Your task to perform on an android device: Do I have any events tomorrow? Image 0: 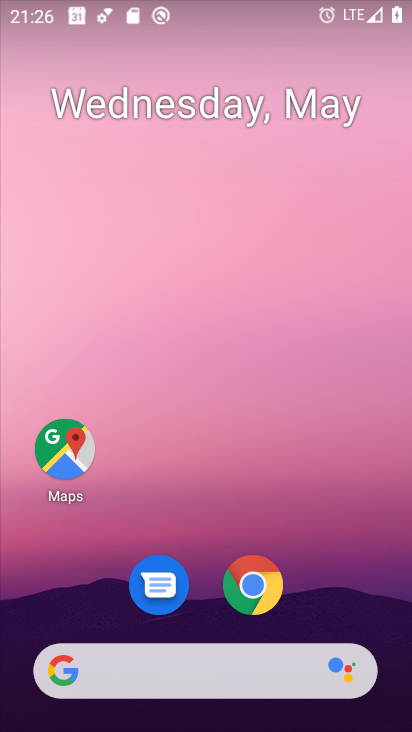
Step 0: drag from (349, 501) to (313, 98)
Your task to perform on an android device: Do I have any events tomorrow? Image 1: 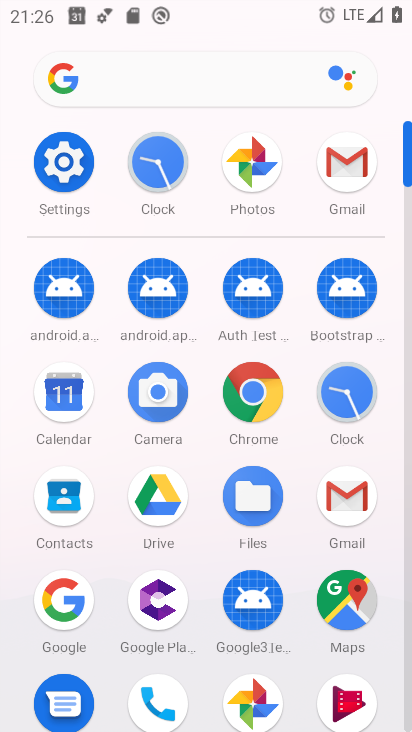
Step 1: click (69, 386)
Your task to perform on an android device: Do I have any events tomorrow? Image 2: 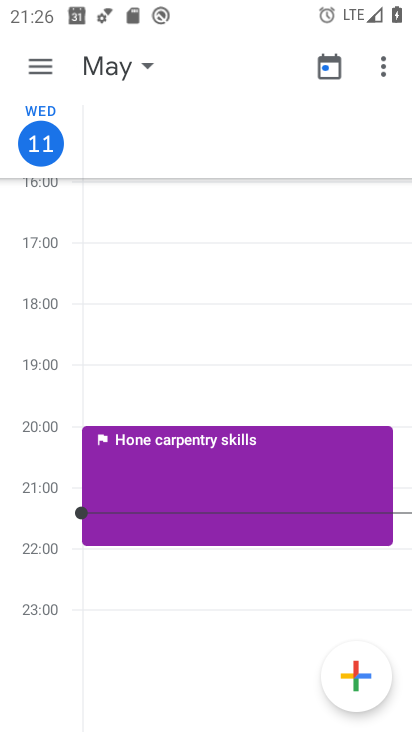
Step 2: click (42, 67)
Your task to perform on an android device: Do I have any events tomorrow? Image 3: 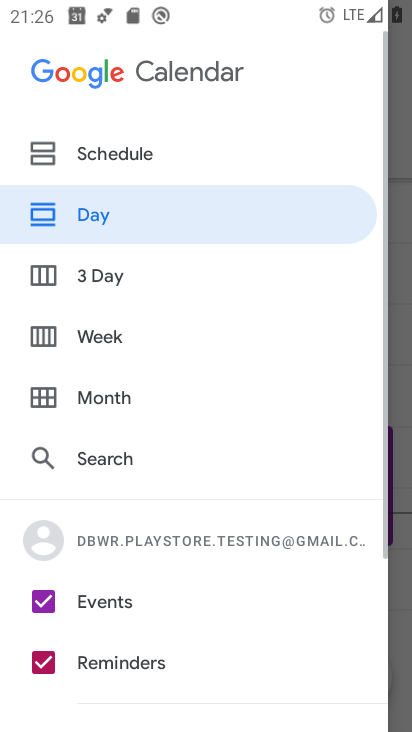
Step 3: click (98, 140)
Your task to perform on an android device: Do I have any events tomorrow? Image 4: 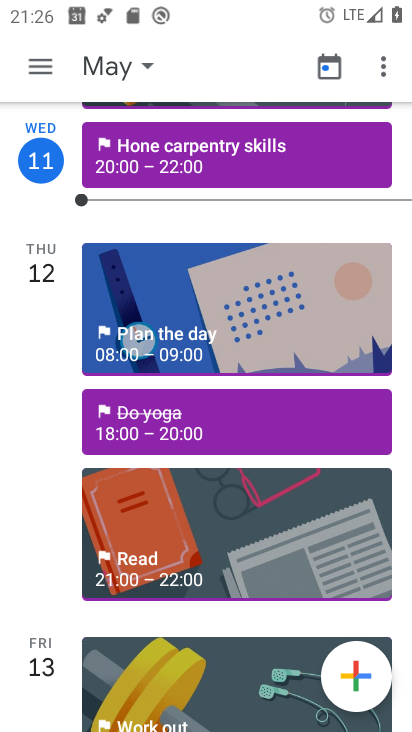
Step 4: task complete